Your task to perform on an android device: Open Reddit.com Image 0: 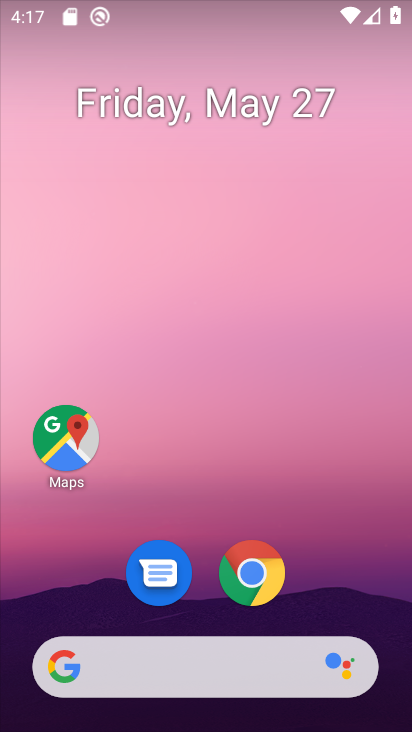
Step 0: click (226, 674)
Your task to perform on an android device: Open Reddit.com Image 1: 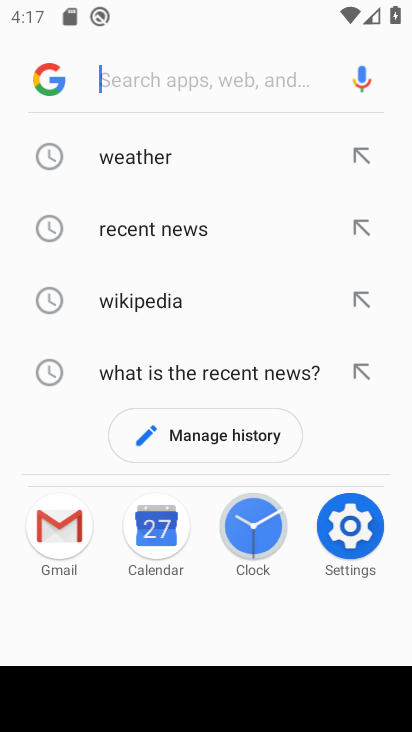
Step 1: type "reddit.com"
Your task to perform on an android device: Open Reddit.com Image 2: 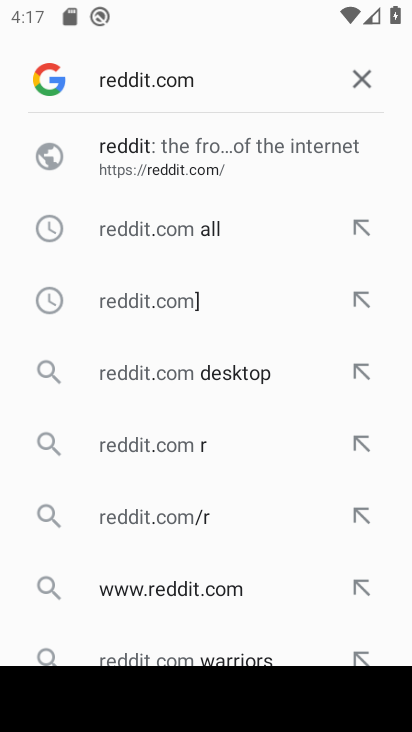
Step 2: click (141, 140)
Your task to perform on an android device: Open Reddit.com Image 3: 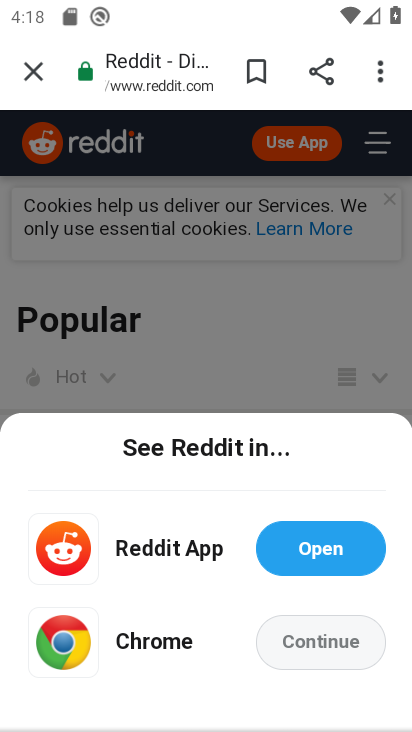
Step 3: task complete